Your task to perform on an android device: See recent photos Image 0: 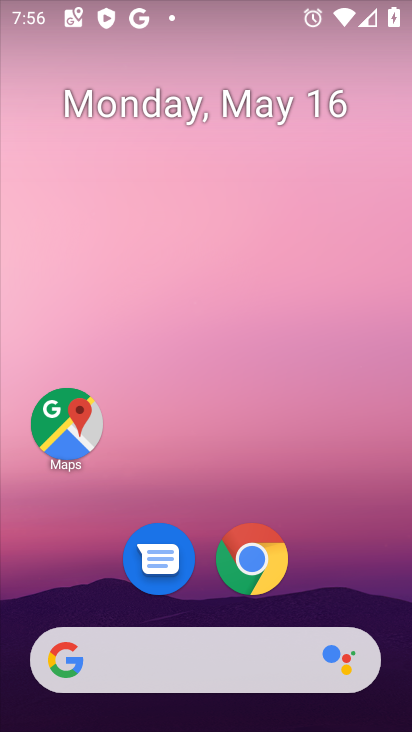
Step 0: drag from (343, 578) to (334, 234)
Your task to perform on an android device: See recent photos Image 1: 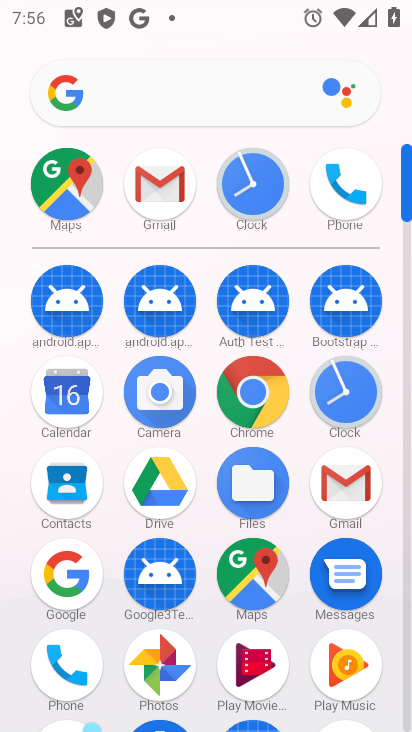
Step 1: click (145, 658)
Your task to perform on an android device: See recent photos Image 2: 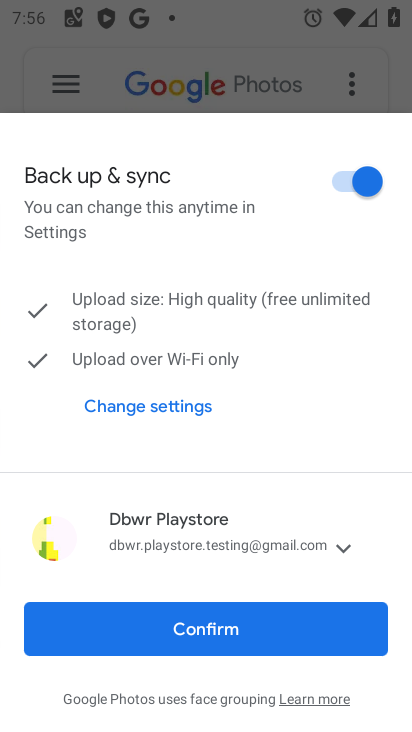
Step 2: click (86, 613)
Your task to perform on an android device: See recent photos Image 3: 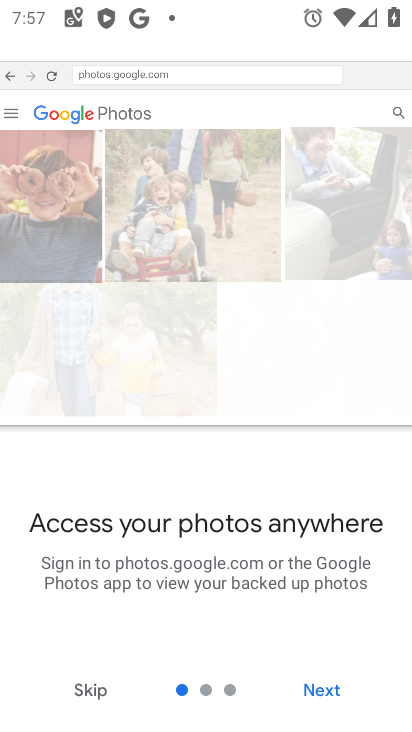
Step 3: click (316, 698)
Your task to perform on an android device: See recent photos Image 4: 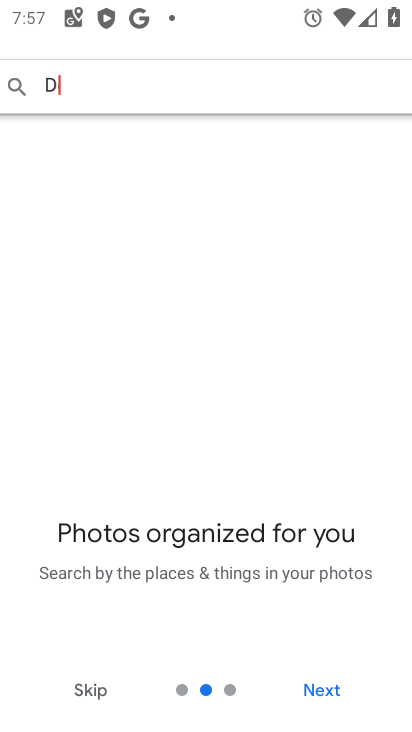
Step 4: click (316, 698)
Your task to perform on an android device: See recent photos Image 5: 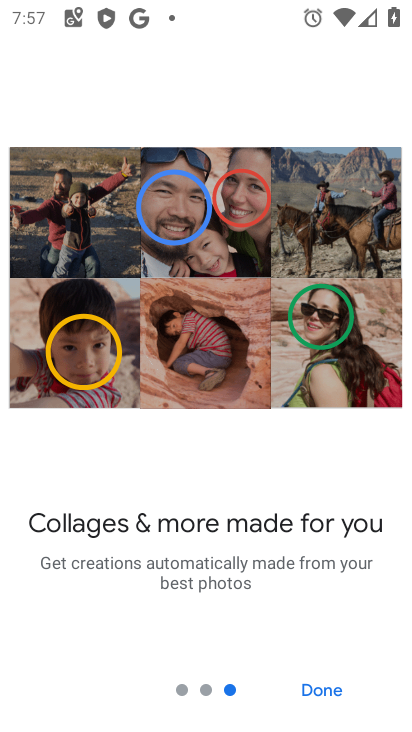
Step 5: click (317, 695)
Your task to perform on an android device: See recent photos Image 6: 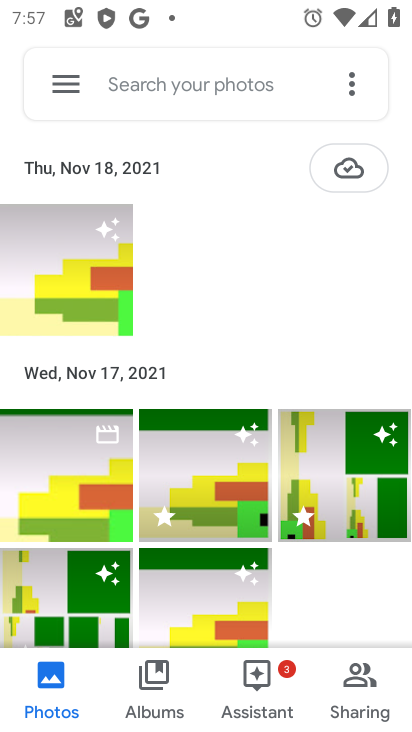
Step 6: task complete